Your task to perform on an android device: turn vacation reply on in the gmail app Image 0: 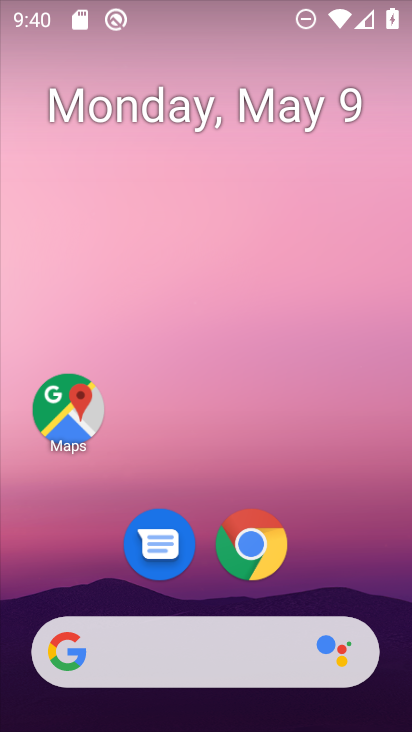
Step 0: drag from (358, 570) to (184, 104)
Your task to perform on an android device: turn vacation reply on in the gmail app Image 1: 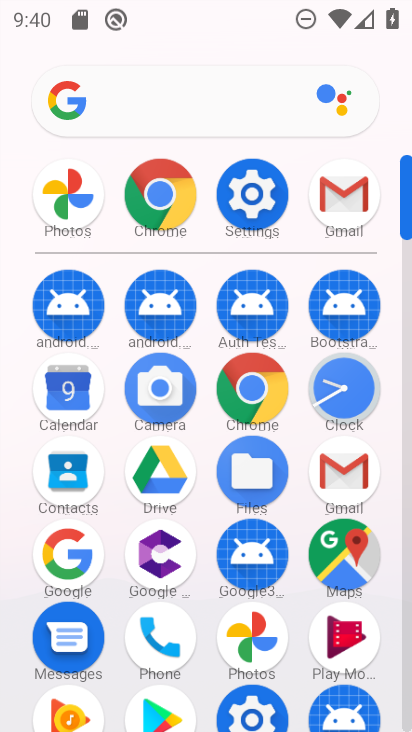
Step 1: click (326, 201)
Your task to perform on an android device: turn vacation reply on in the gmail app Image 2: 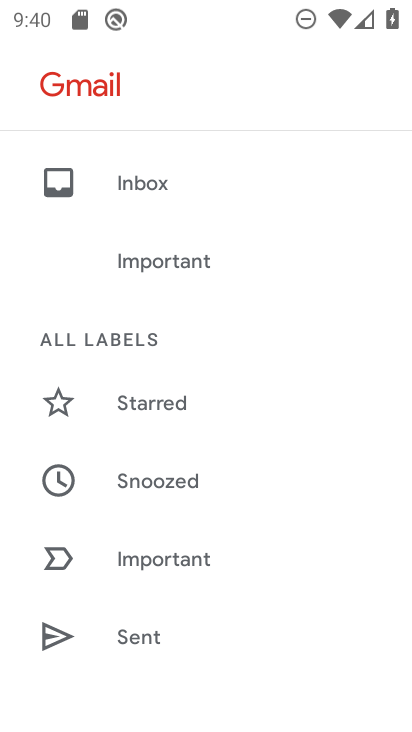
Step 2: drag from (232, 592) to (173, 151)
Your task to perform on an android device: turn vacation reply on in the gmail app Image 3: 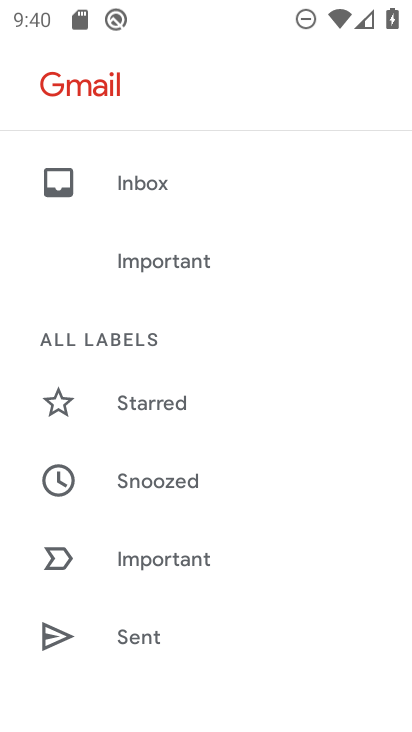
Step 3: drag from (158, 610) to (188, 151)
Your task to perform on an android device: turn vacation reply on in the gmail app Image 4: 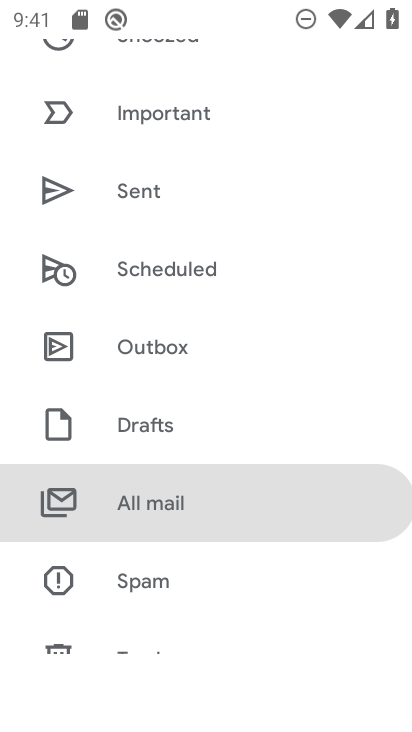
Step 4: drag from (134, 617) to (151, 276)
Your task to perform on an android device: turn vacation reply on in the gmail app Image 5: 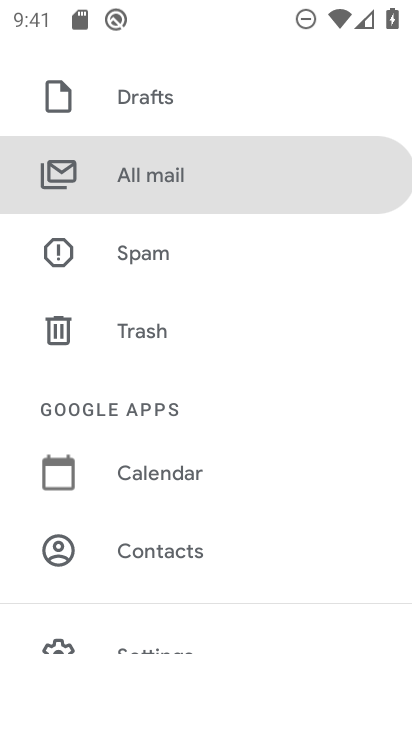
Step 5: drag from (139, 582) to (116, 99)
Your task to perform on an android device: turn vacation reply on in the gmail app Image 6: 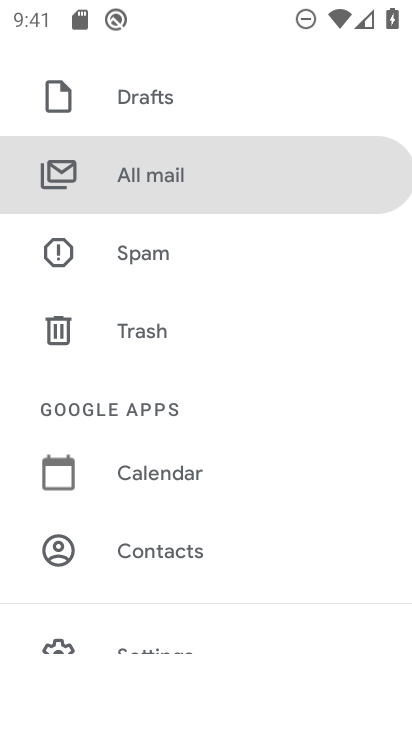
Step 6: drag from (121, 612) to (135, 198)
Your task to perform on an android device: turn vacation reply on in the gmail app Image 7: 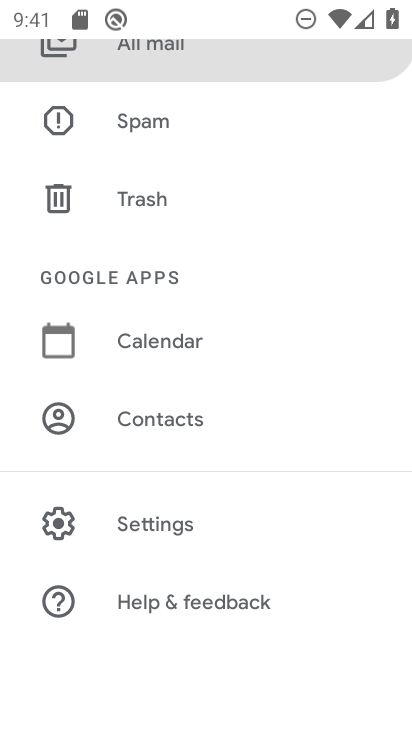
Step 7: click (128, 515)
Your task to perform on an android device: turn vacation reply on in the gmail app Image 8: 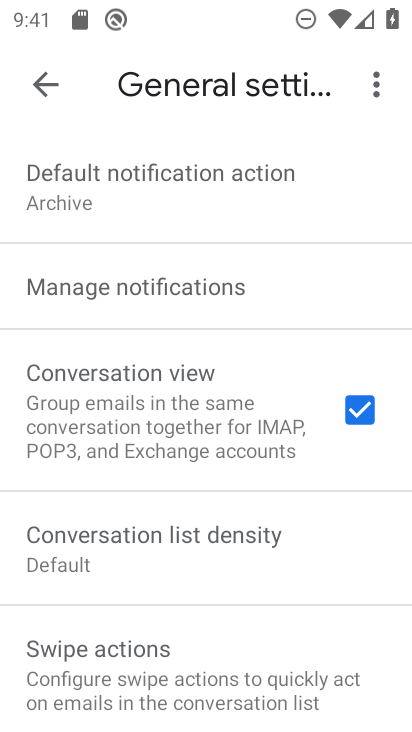
Step 8: drag from (187, 543) to (196, 83)
Your task to perform on an android device: turn vacation reply on in the gmail app Image 9: 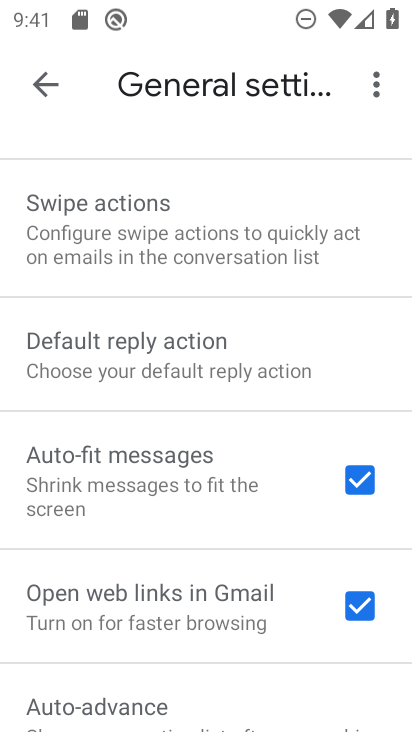
Step 9: drag from (125, 662) to (77, 202)
Your task to perform on an android device: turn vacation reply on in the gmail app Image 10: 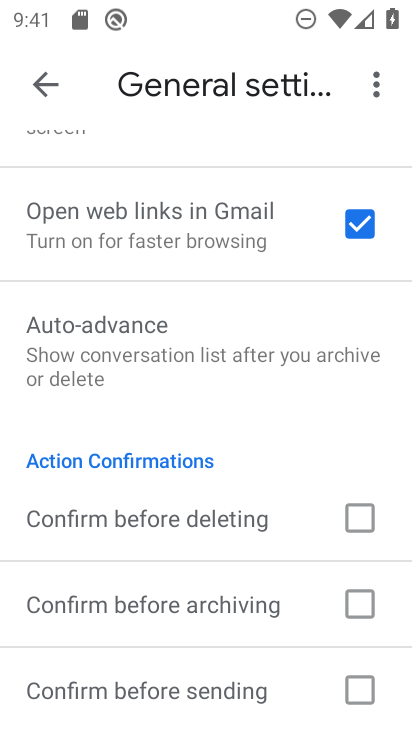
Step 10: drag from (134, 560) to (89, 213)
Your task to perform on an android device: turn vacation reply on in the gmail app Image 11: 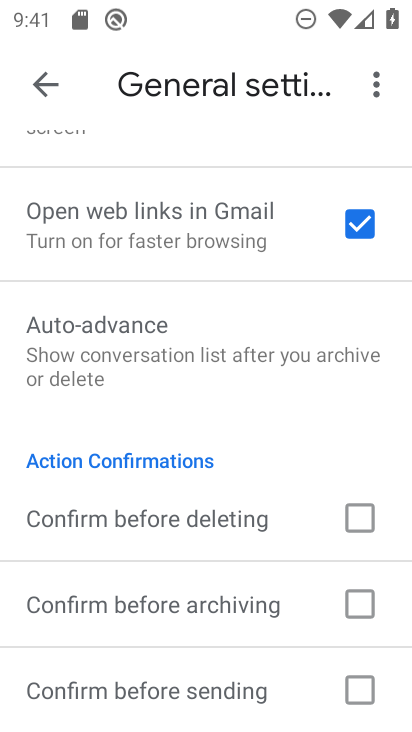
Step 11: click (42, 90)
Your task to perform on an android device: turn vacation reply on in the gmail app Image 12: 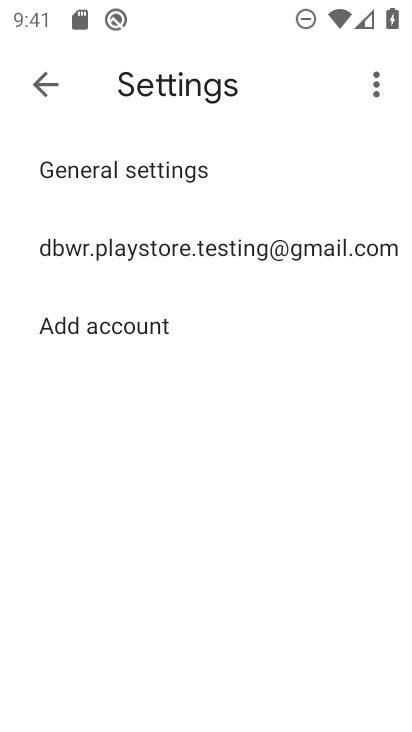
Step 12: click (133, 243)
Your task to perform on an android device: turn vacation reply on in the gmail app Image 13: 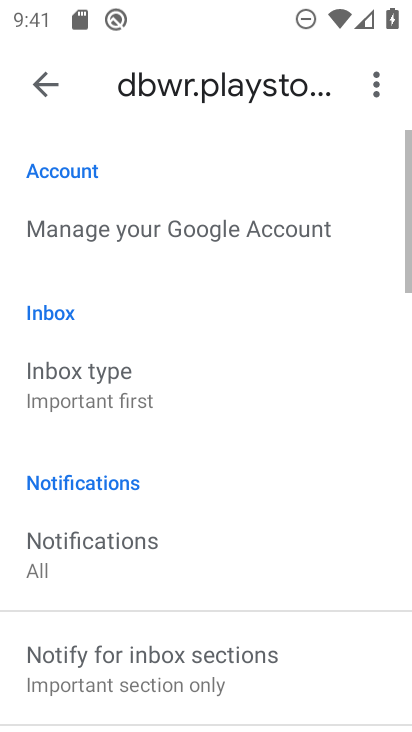
Step 13: drag from (121, 465) to (86, 13)
Your task to perform on an android device: turn vacation reply on in the gmail app Image 14: 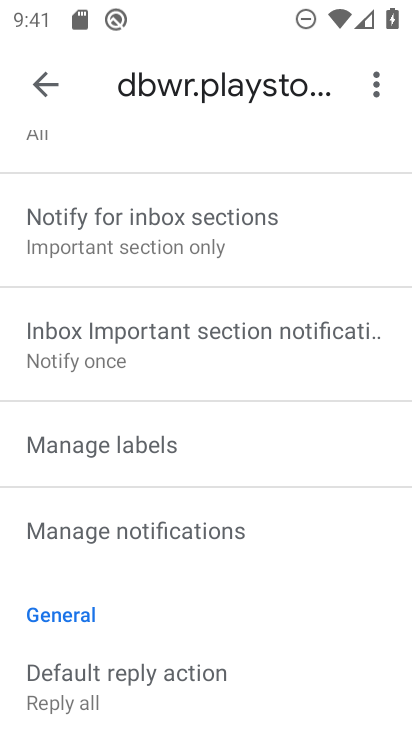
Step 14: drag from (145, 544) to (119, 117)
Your task to perform on an android device: turn vacation reply on in the gmail app Image 15: 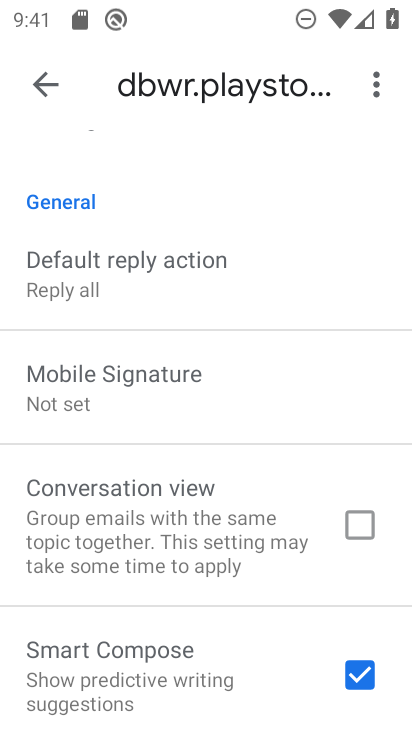
Step 15: drag from (100, 580) to (68, 261)
Your task to perform on an android device: turn vacation reply on in the gmail app Image 16: 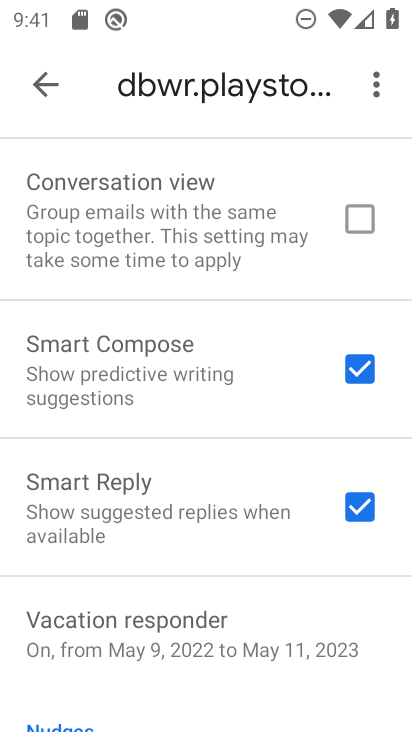
Step 16: click (134, 618)
Your task to perform on an android device: turn vacation reply on in the gmail app Image 17: 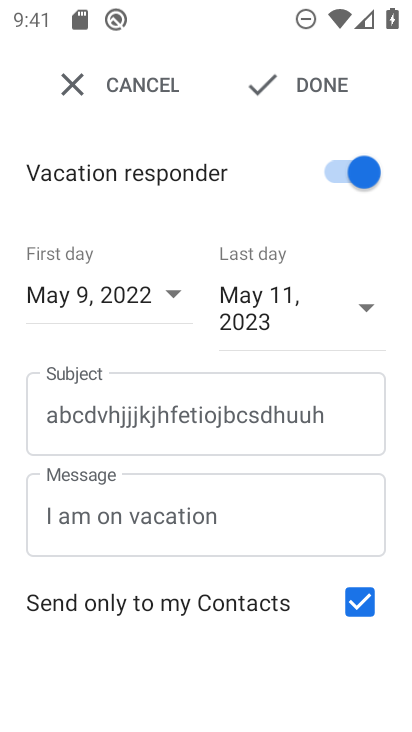
Step 17: task complete